Your task to perform on an android device: Do I have any events tomorrow? Image 0: 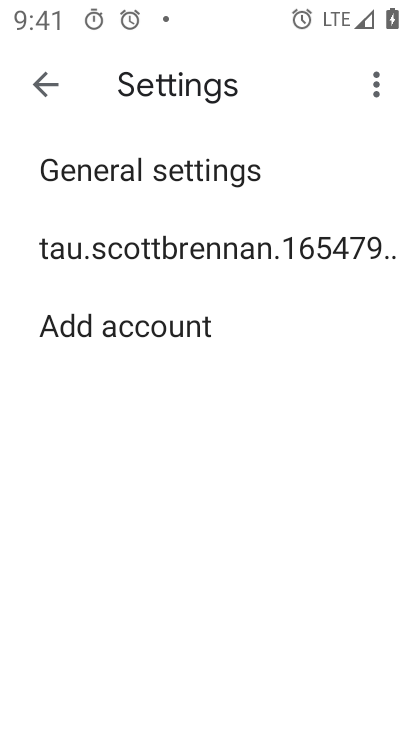
Step 0: press home button
Your task to perform on an android device: Do I have any events tomorrow? Image 1: 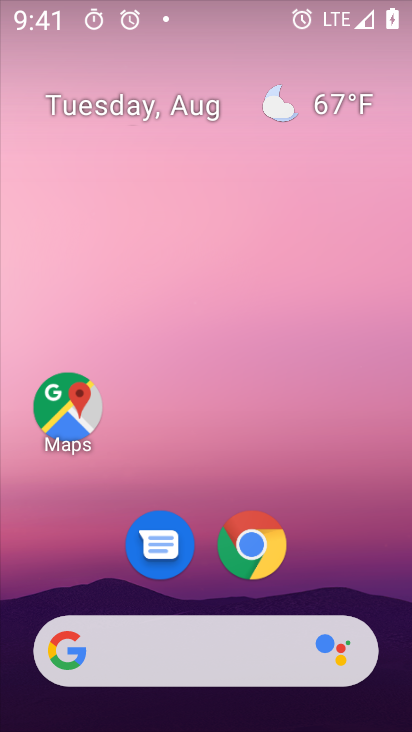
Step 1: drag from (268, 660) to (268, 163)
Your task to perform on an android device: Do I have any events tomorrow? Image 2: 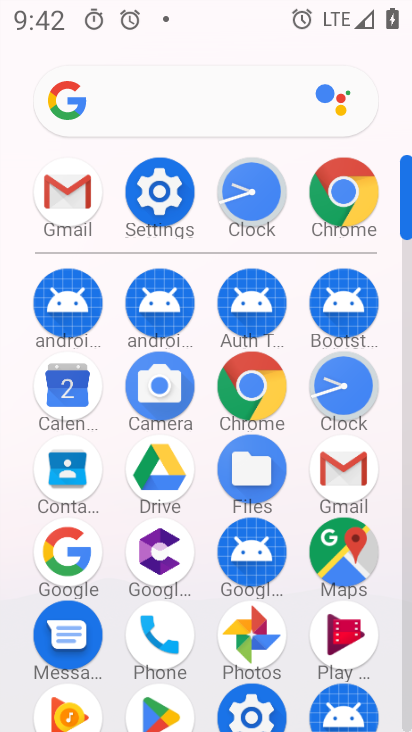
Step 2: click (68, 397)
Your task to perform on an android device: Do I have any events tomorrow? Image 3: 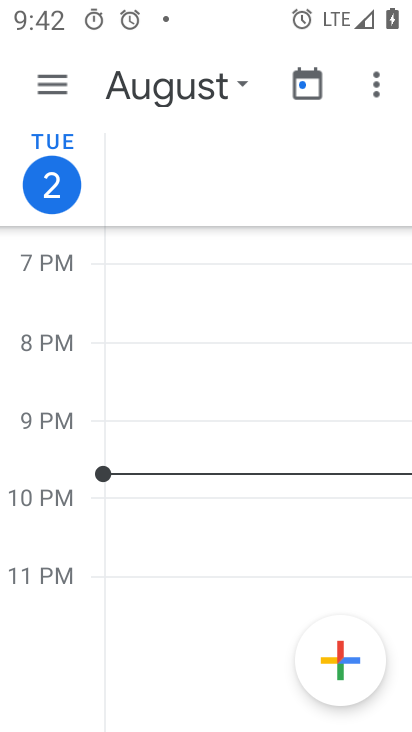
Step 3: click (43, 88)
Your task to perform on an android device: Do I have any events tomorrow? Image 4: 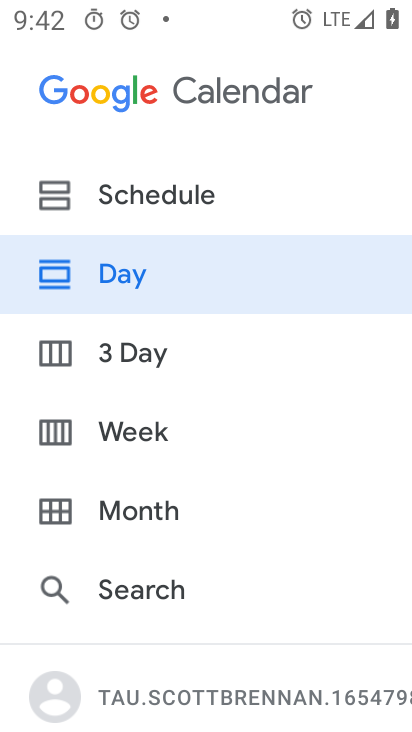
Step 4: click (165, 199)
Your task to perform on an android device: Do I have any events tomorrow? Image 5: 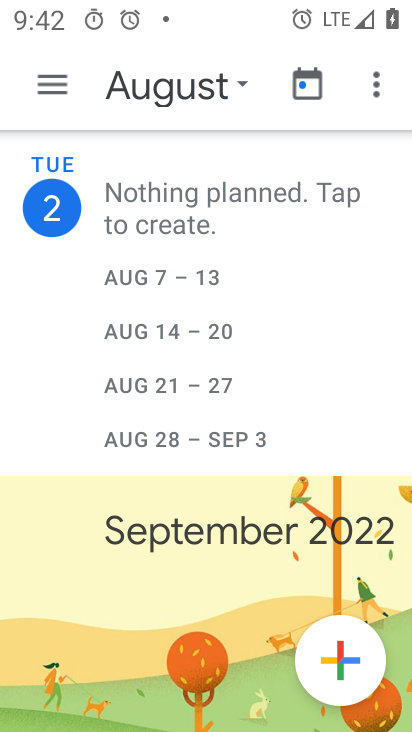
Step 5: task complete